Your task to perform on an android device: Open Amazon Image 0: 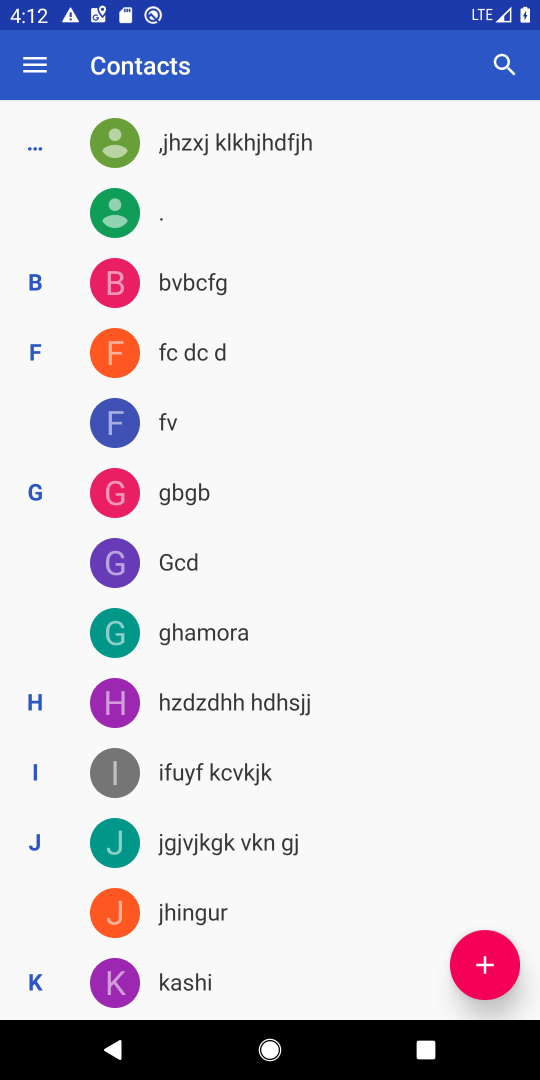
Step 0: press back button
Your task to perform on an android device: Open Amazon Image 1: 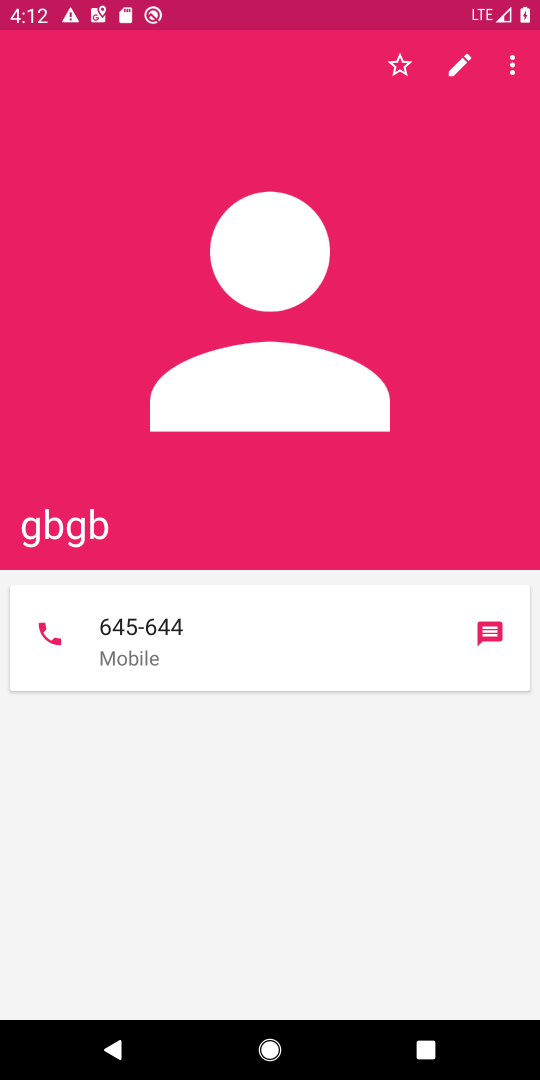
Step 1: press back button
Your task to perform on an android device: Open Amazon Image 2: 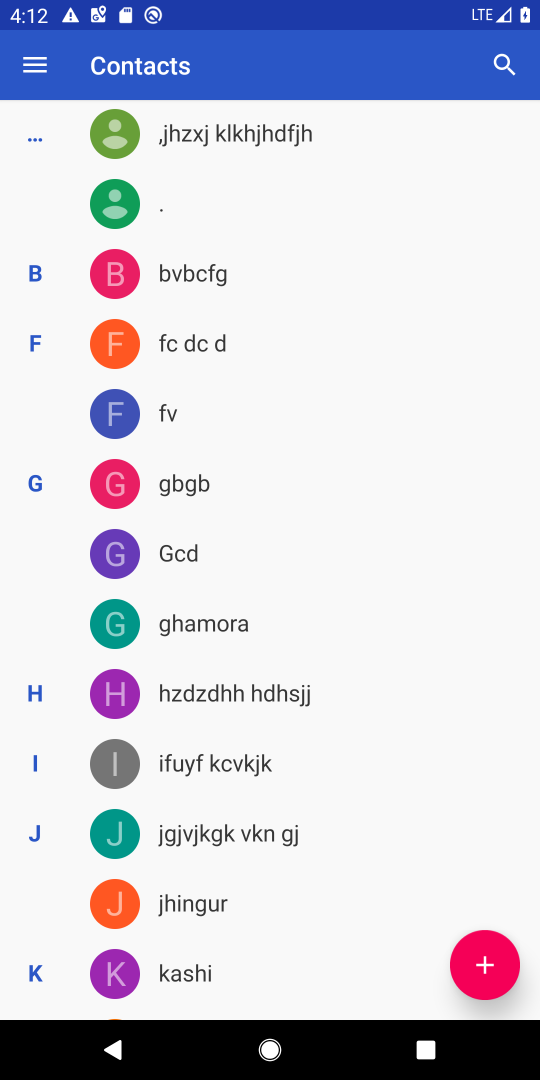
Step 2: press back button
Your task to perform on an android device: Open Amazon Image 3: 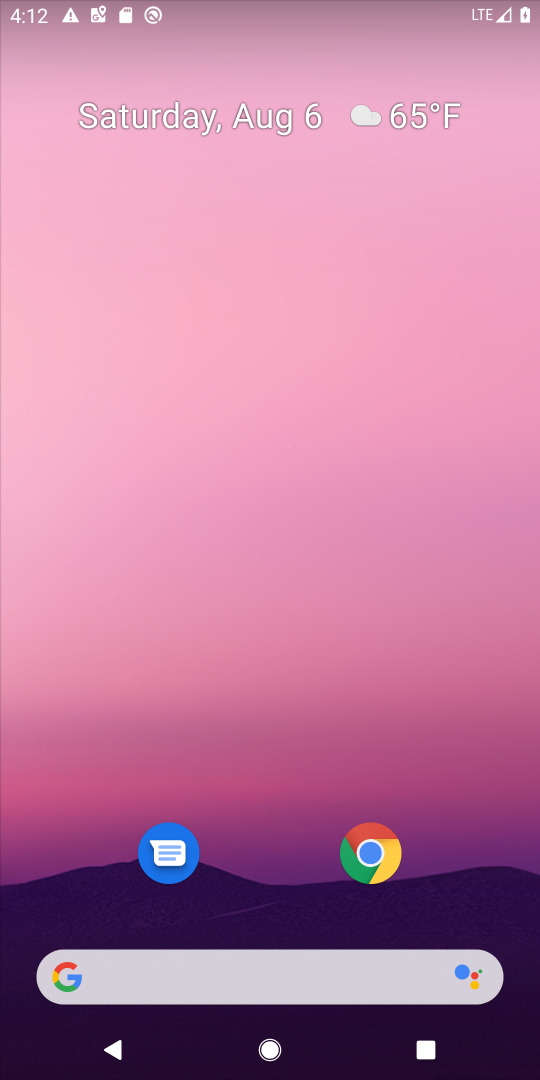
Step 3: click (360, 855)
Your task to perform on an android device: Open Amazon Image 4: 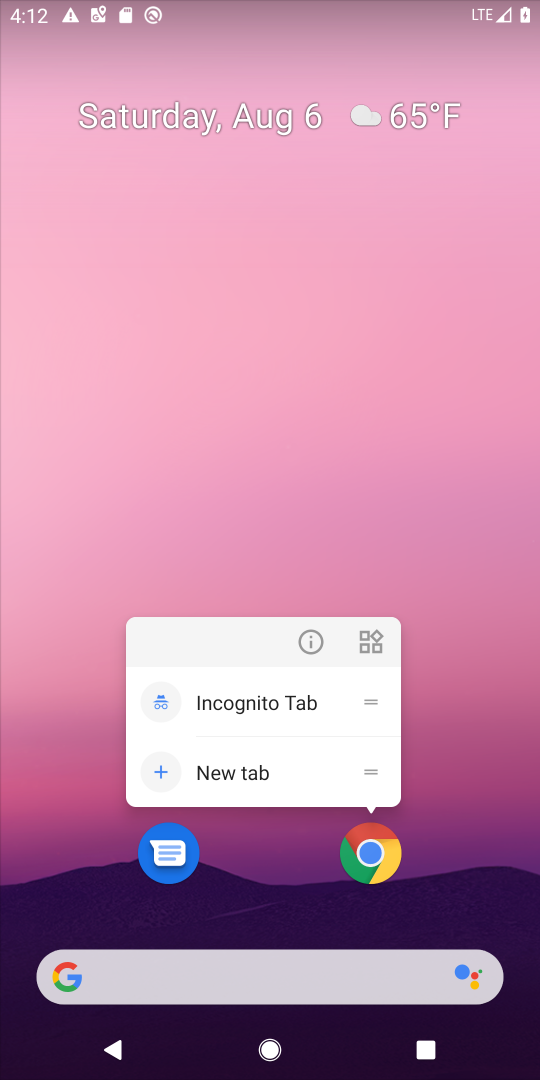
Step 4: click (369, 862)
Your task to perform on an android device: Open Amazon Image 5: 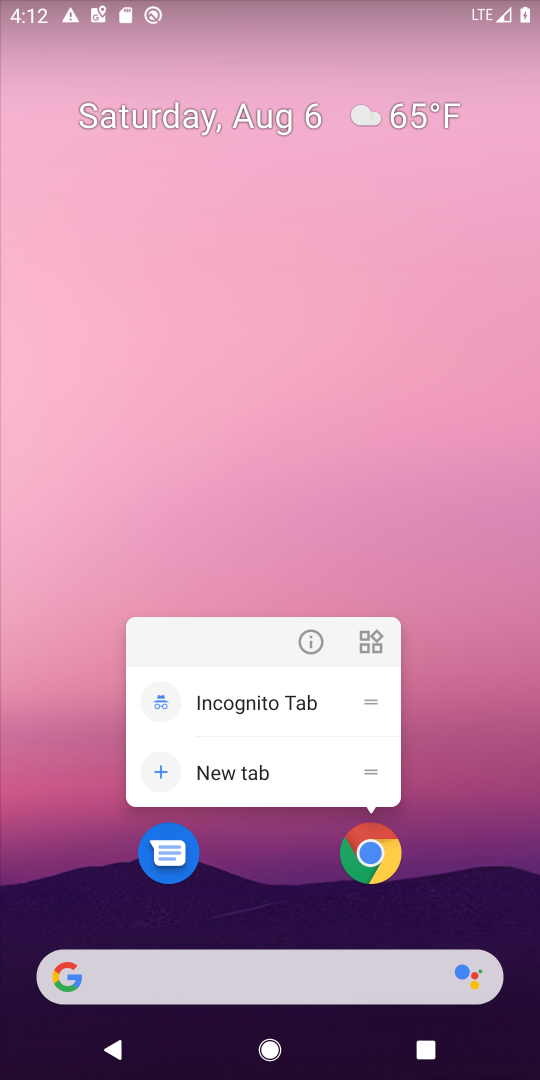
Step 5: click (367, 861)
Your task to perform on an android device: Open Amazon Image 6: 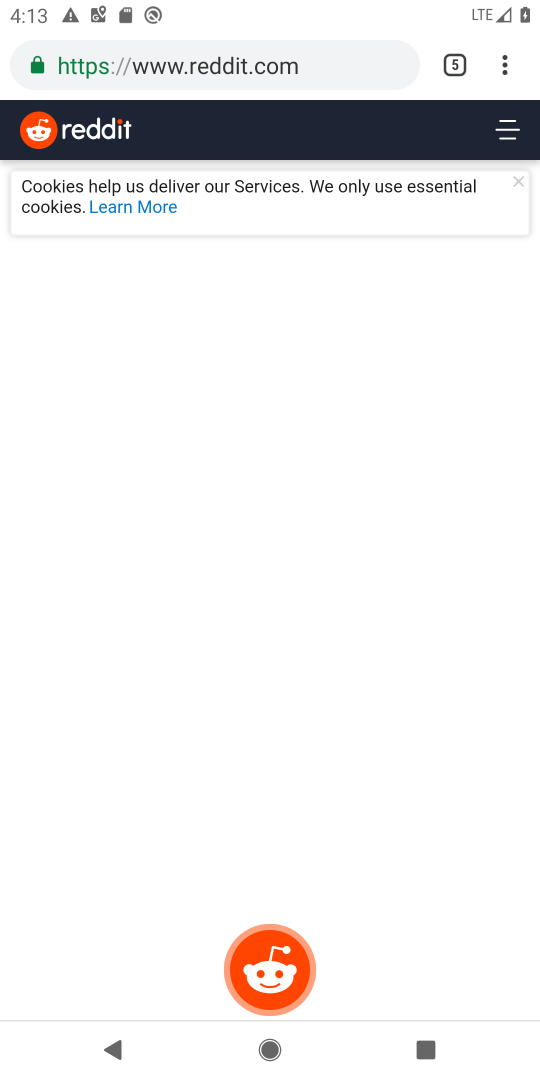
Step 6: click (460, 59)
Your task to perform on an android device: Open Amazon Image 7: 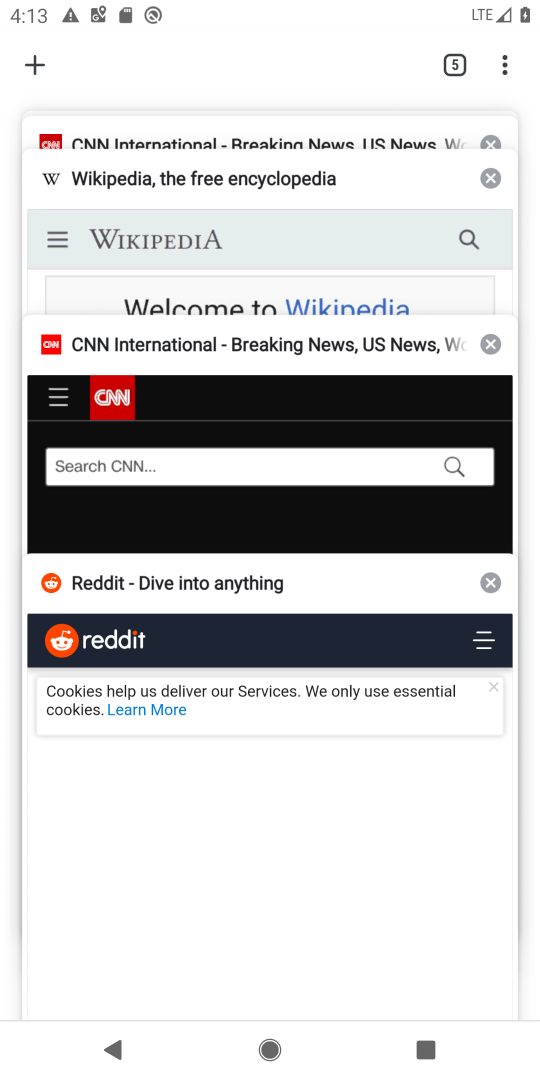
Step 7: drag from (242, 164) to (137, 852)
Your task to perform on an android device: Open Amazon Image 8: 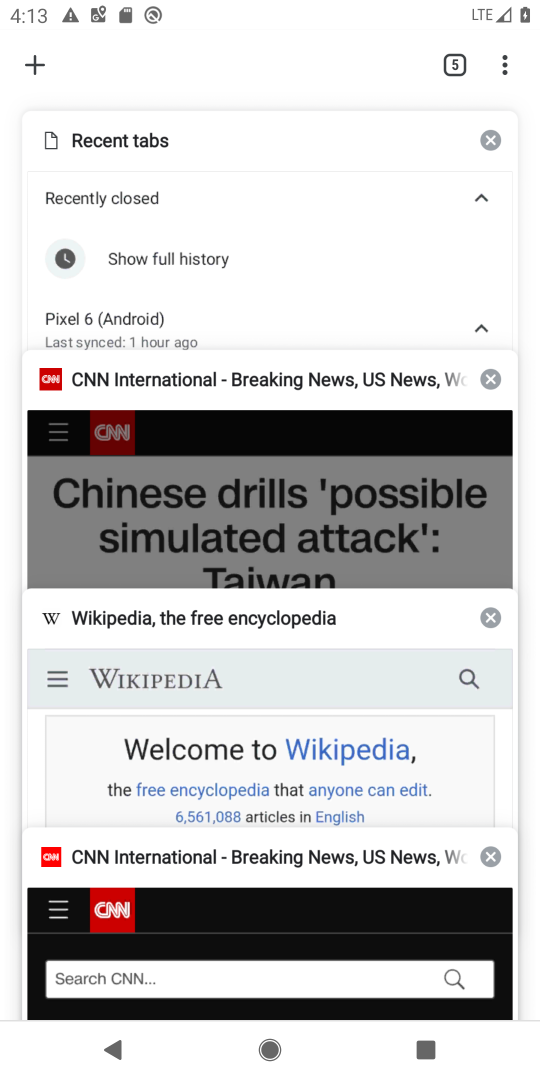
Step 8: click (39, 53)
Your task to perform on an android device: Open Amazon Image 9: 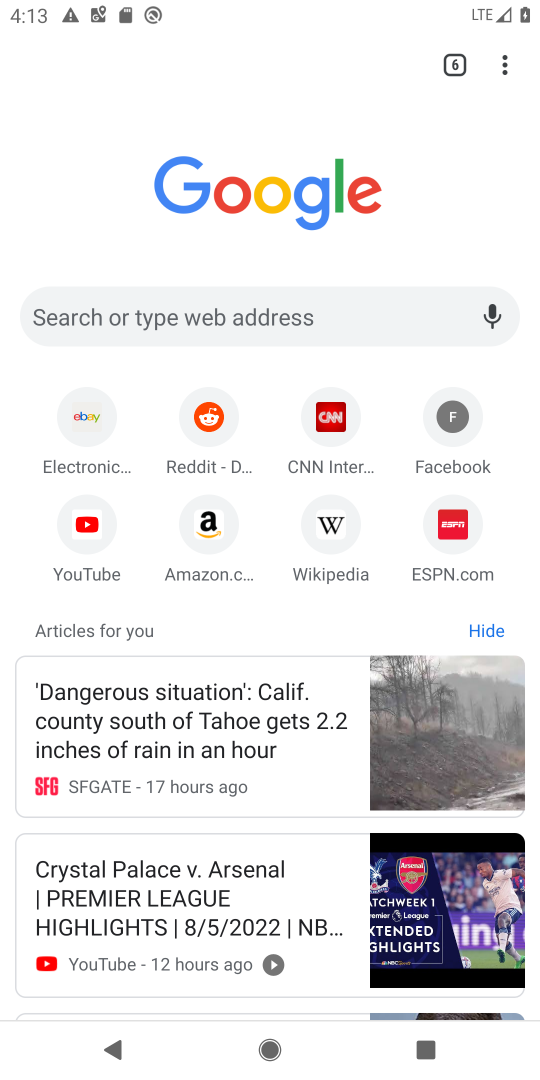
Step 9: click (196, 533)
Your task to perform on an android device: Open Amazon Image 10: 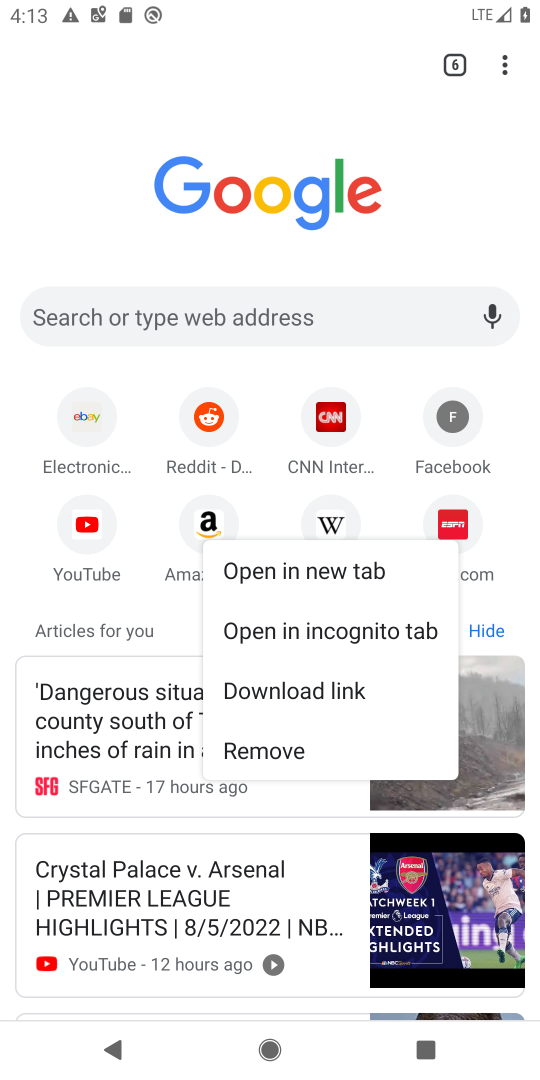
Step 10: click (207, 518)
Your task to perform on an android device: Open Amazon Image 11: 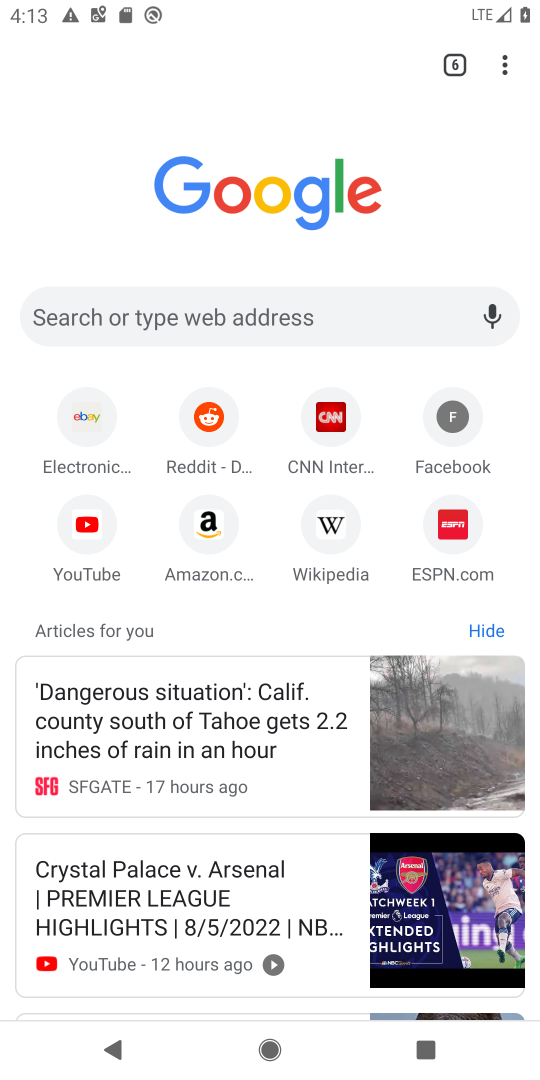
Step 11: click (205, 509)
Your task to perform on an android device: Open Amazon Image 12: 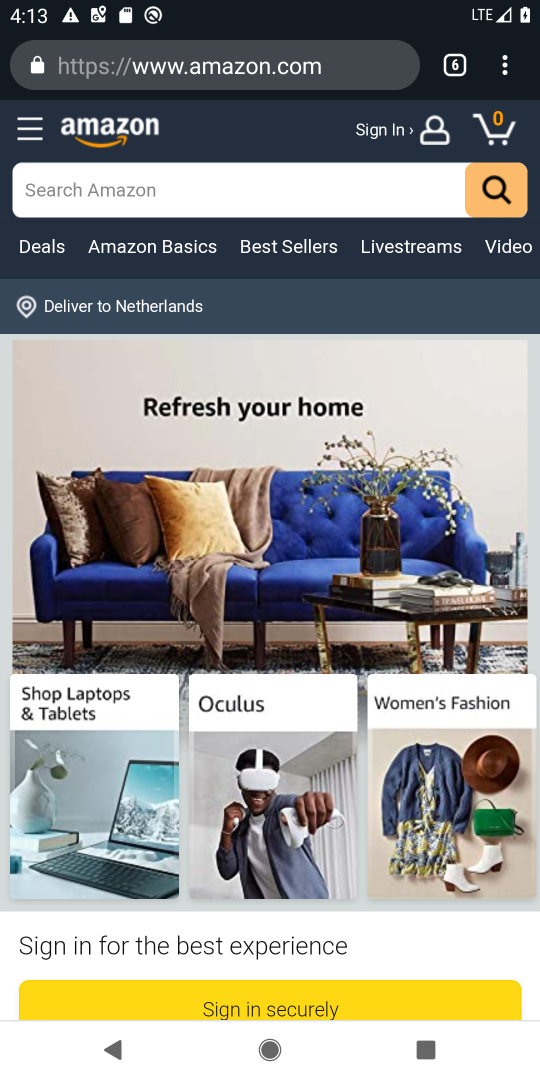
Step 12: task complete